Your task to perform on an android device: Go to Google maps Image 0: 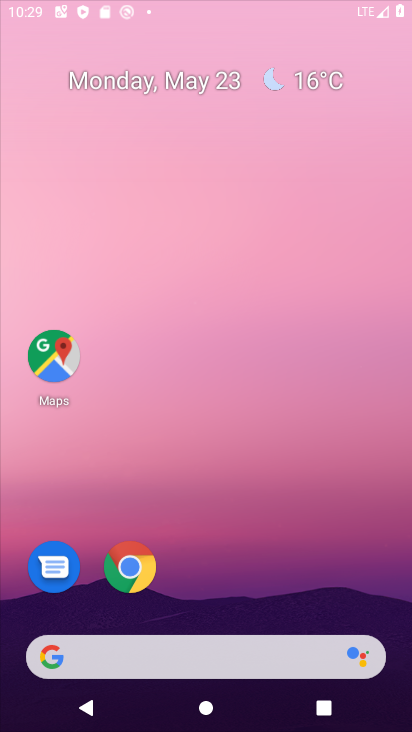
Step 0: click (251, 376)
Your task to perform on an android device: Go to Google maps Image 1: 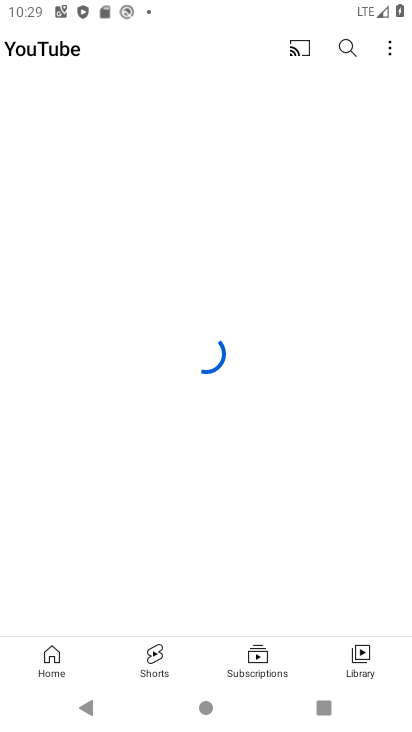
Step 1: press home button
Your task to perform on an android device: Go to Google maps Image 2: 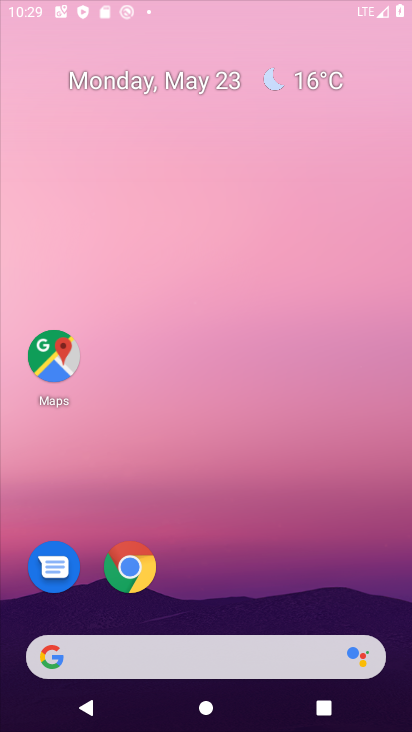
Step 2: drag from (211, 590) to (212, 164)
Your task to perform on an android device: Go to Google maps Image 3: 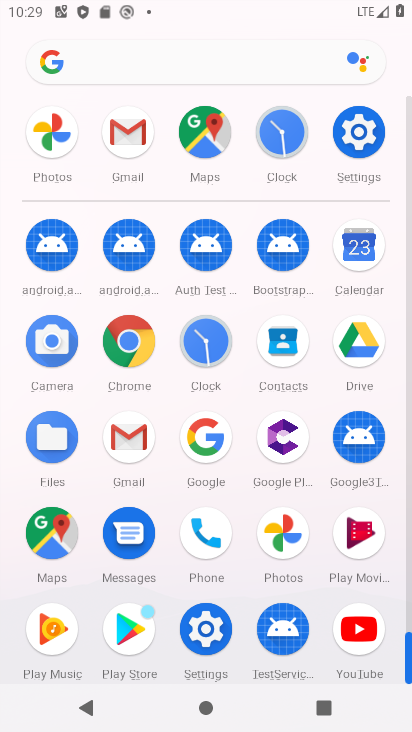
Step 3: click (36, 537)
Your task to perform on an android device: Go to Google maps Image 4: 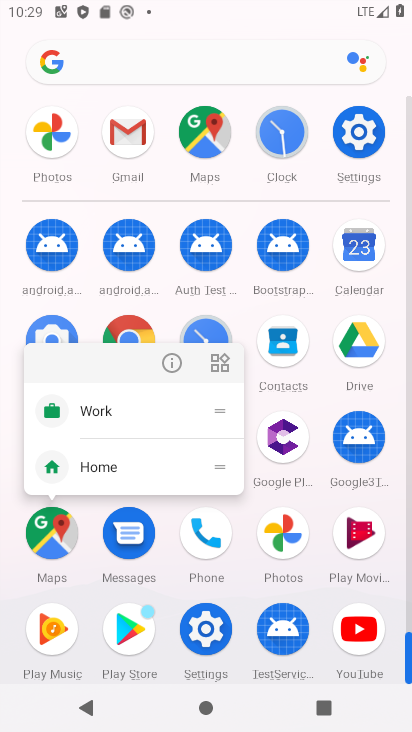
Step 4: click (173, 356)
Your task to perform on an android device: Go to Google maps Image 5: 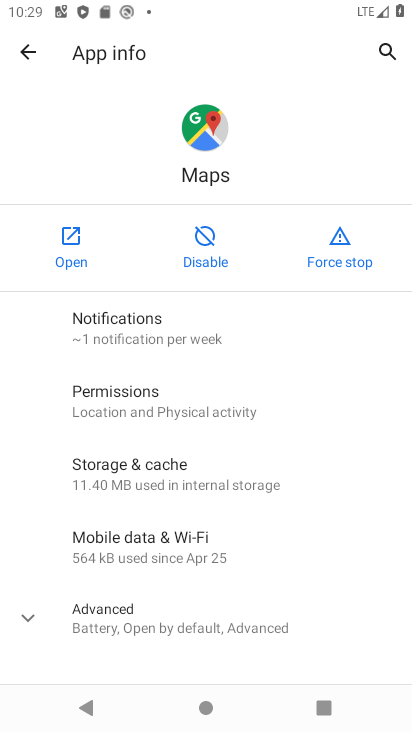
Step 5: click (87, 250)
Your task to perform on an android device: Go to Google maps Image 6: 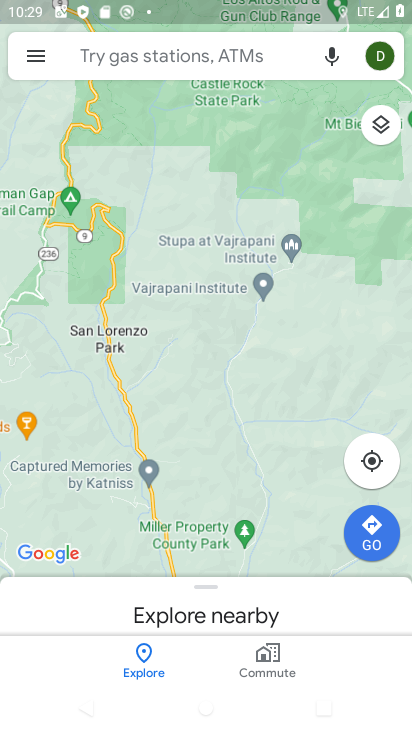
Step 6: task complete